Your task to perform on an android device: What is the recent news? Image 0: 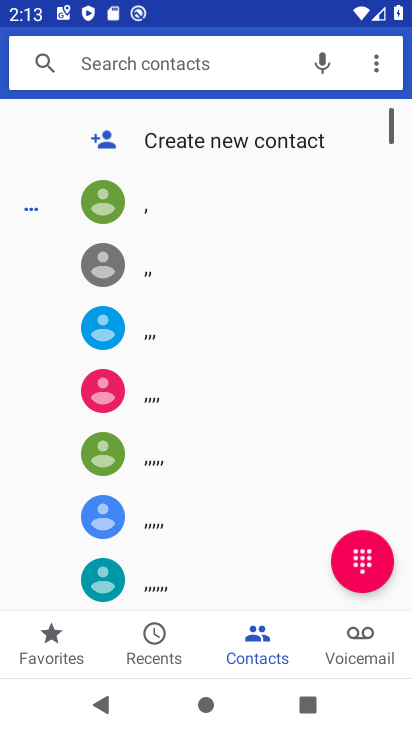
Step 0: press home button
Your task to perform on an android device: What is the recent news? Image 1: 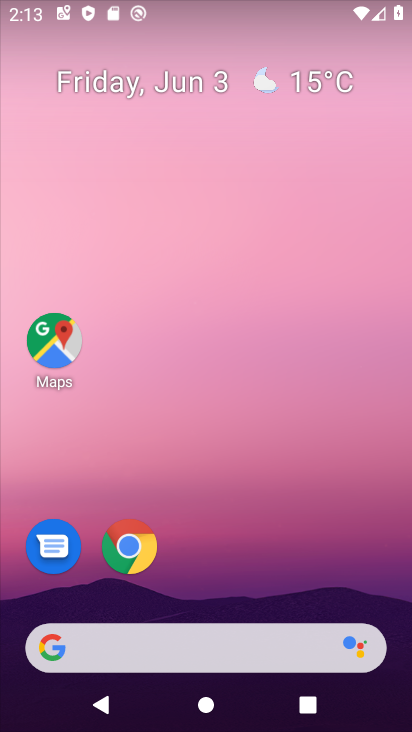
Step 1: drag from (314, 526) to (238, 47)
Your task to perform on an android device: What is the recent news? Image 2: 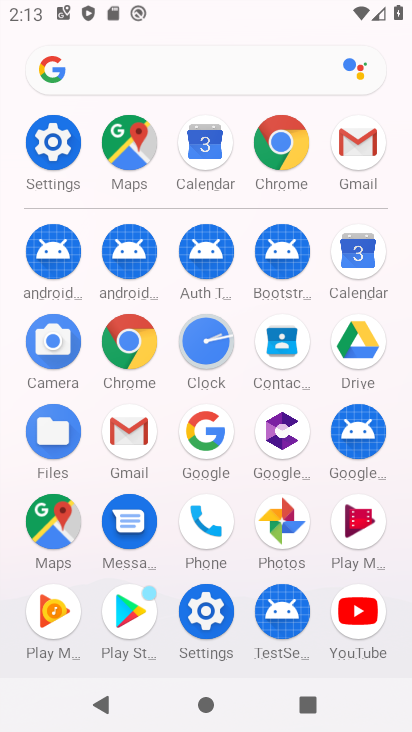
Step 2: click (253, 141)
Your task to perform on an android device: What is the recent news? Image 3: 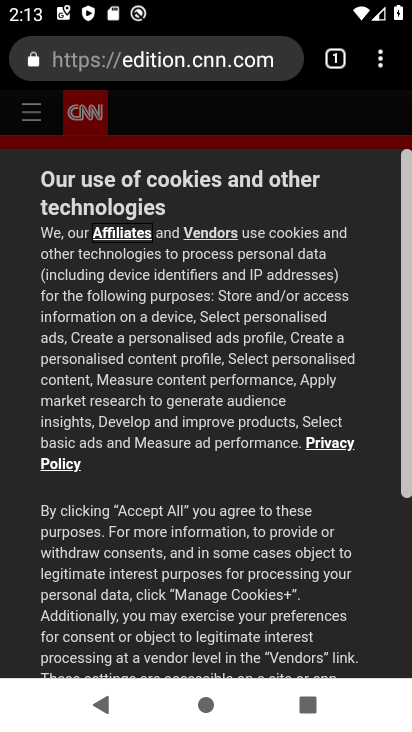
Step 3: task complete